Your task to perform on an android device: open a new tab in the chrome app Image 0: 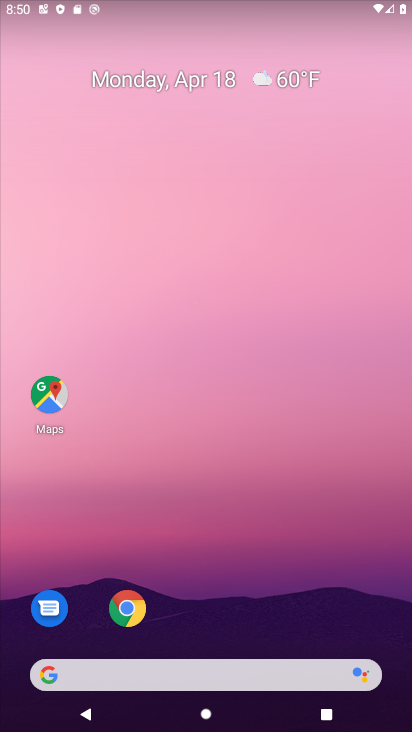
Step 0: drag from (238, 432) to (250, 364)
Your task to perform on an android device: open a new tab in the chrome app Image 1: 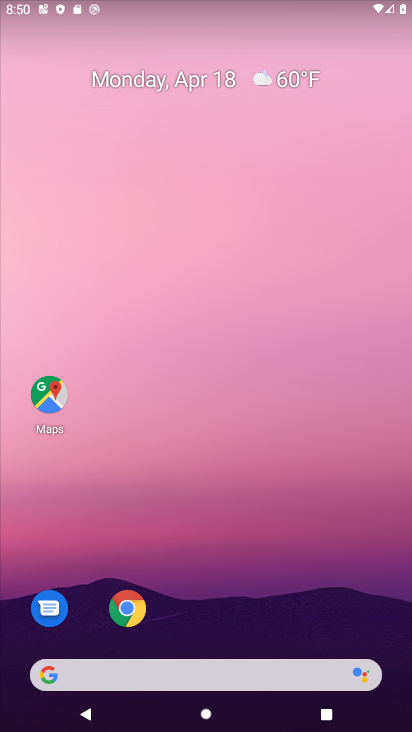
Step 1: drag from (233, 426) to (260, 242)
Your task to perform on an android device: open a new tab in the chrome app Image 2: 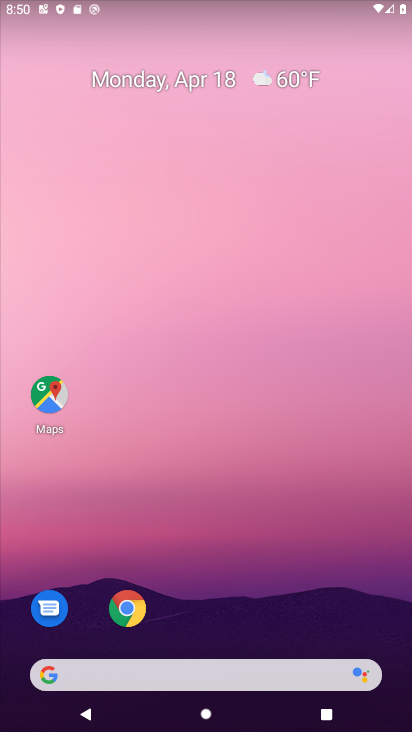
Step 2: drag from (197, 634) to (199, 291)
Your task to perform on an android device: open a new tab in the chrome app Image 3: 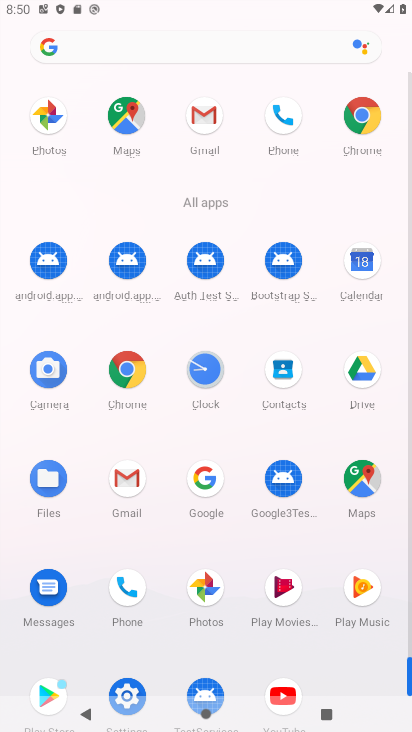
Step 3: click (135, 371)
Your task to perform on an android device: open a new tab in the chrome app Image 4: 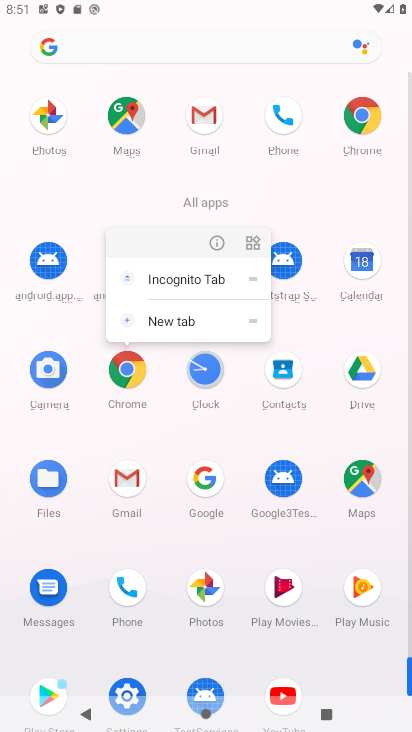
Step 4: click (206, 242)
Your task to perform on an android device: open a new tab in the chrome app Image 5: 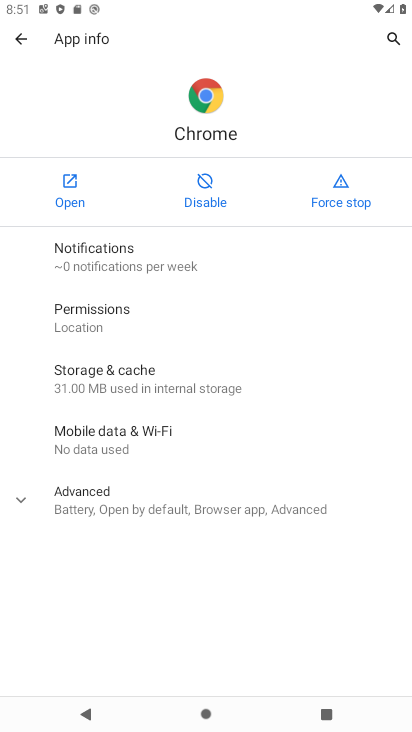
Step 5: click (77, 191)
Your task to perform on an android device: open a new tab in the chrome app Image 6: 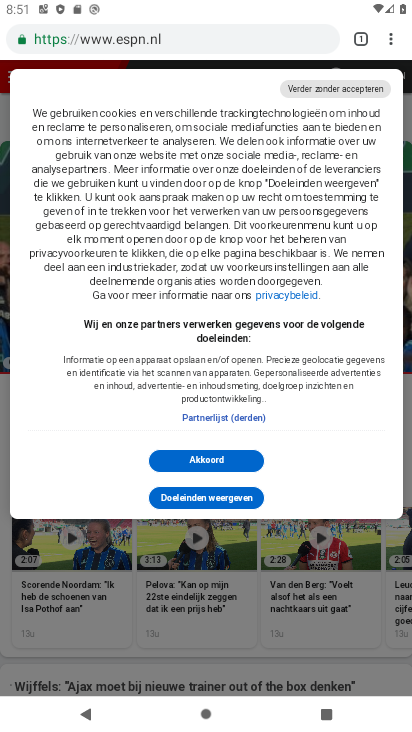
Step 6: click (236, 610)
Your task to perform on an android device: open a new tab in the chrome app Image 7: 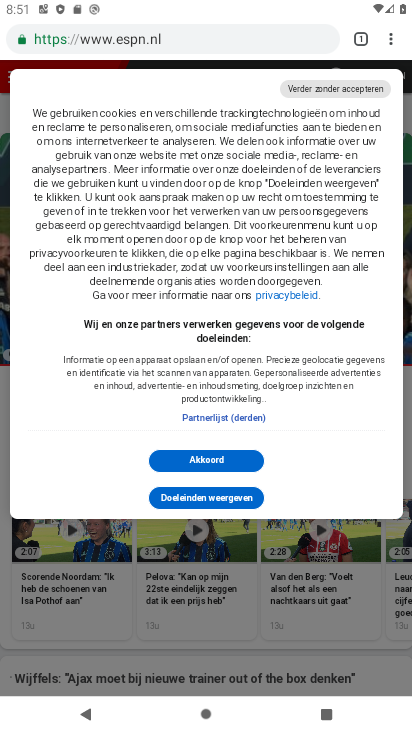
Step 7: click (355, 44)
Your task to perform on an android device: open a new tab in the chrome app Image 8: 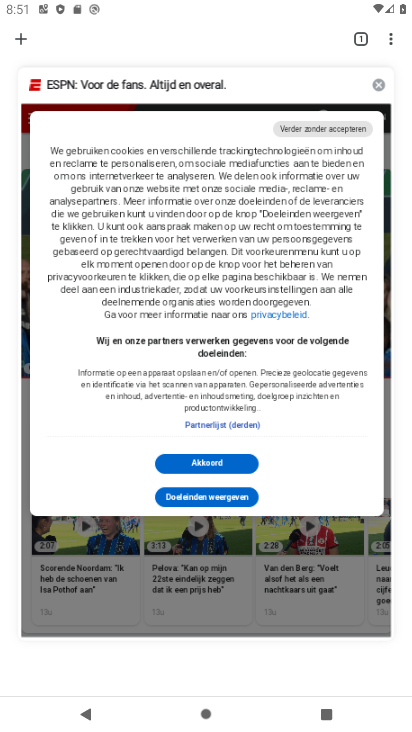
Step 8: click (19, 40)
Your task to perform on an android device: open a new tab in the chrome app Image 9: 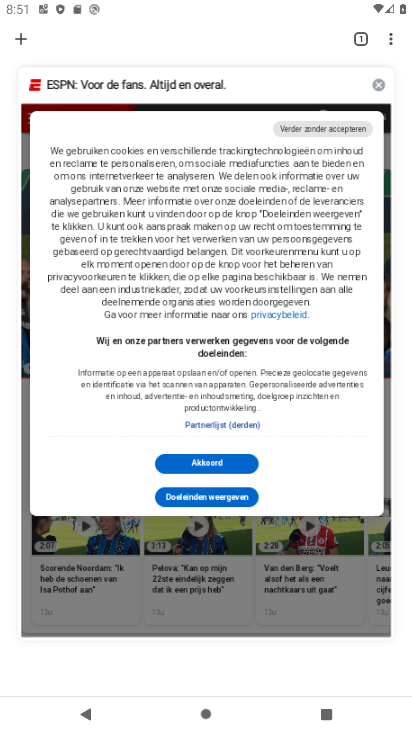
Step 9: click (31, 42)
Your task to perform on an android device: open a new tab in the chrome app Image 10: 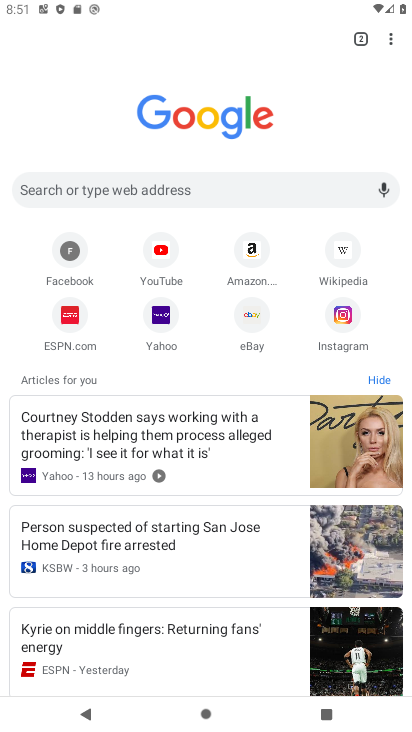
Step 10: task complete